Your task to perform on an android device: Show the shopping cart on amazon.com. Search for macbook pro on amazon.com, select the first entry, and add it to the cart. Image 0: 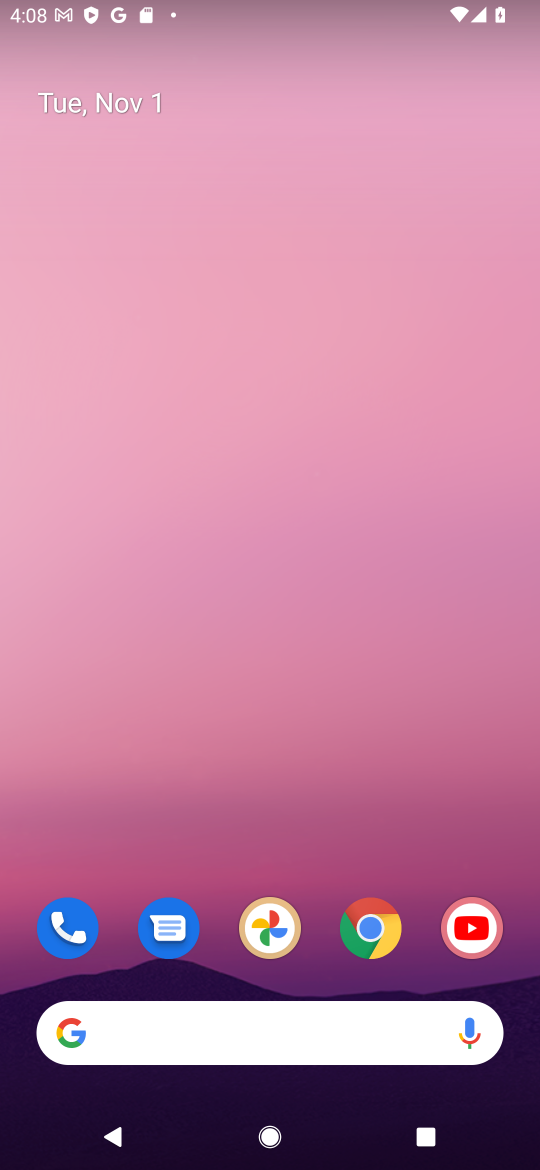
Step 0: click (375, 937)
Your task to perform on an android device: Show the shopping cart on amazon.com. Search for macbook pro on amazon.com, select the first entry, and add it to the cart. Image 1: 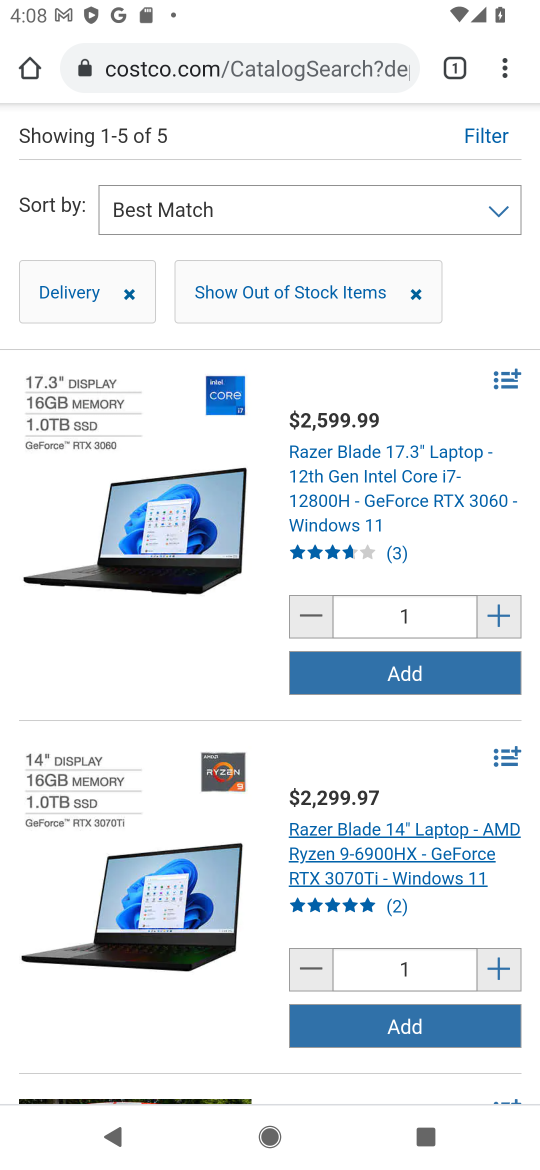
Step 1: click (238, 59)
Your task to perform on an android device: Show the shopping cart on amazon.com. Search for macbook pro on amazon.com, select the first entry, and add it to the cart. Image 2: 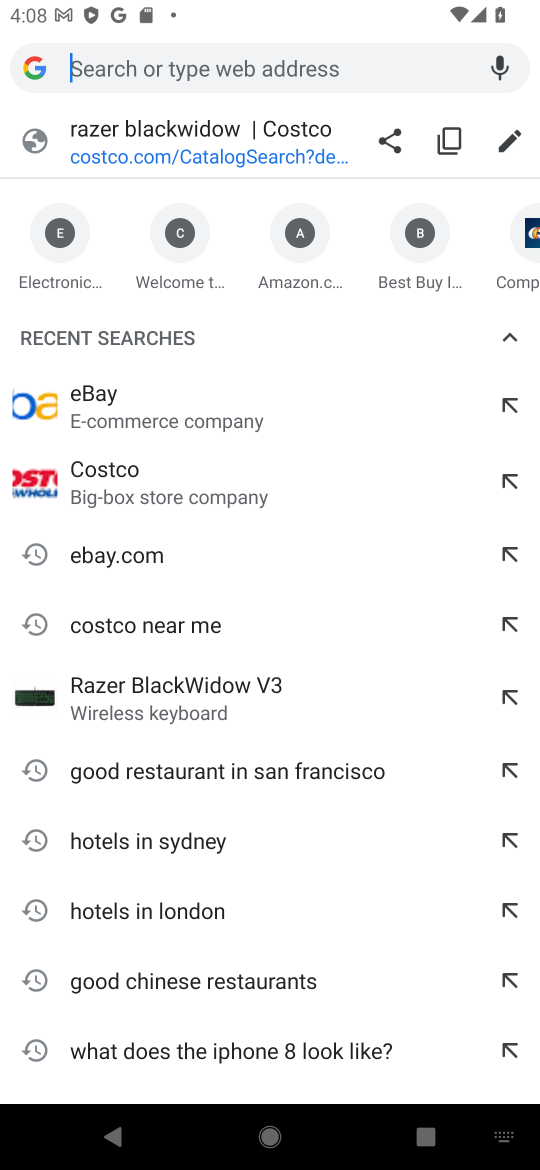
Step 2: type "amazon.com"
Your task to perform on an android device: Show the shopping cart on amazon.com. Search for macbook pro on amazon.com, select the first entry, and add it to the cart. Image 3: 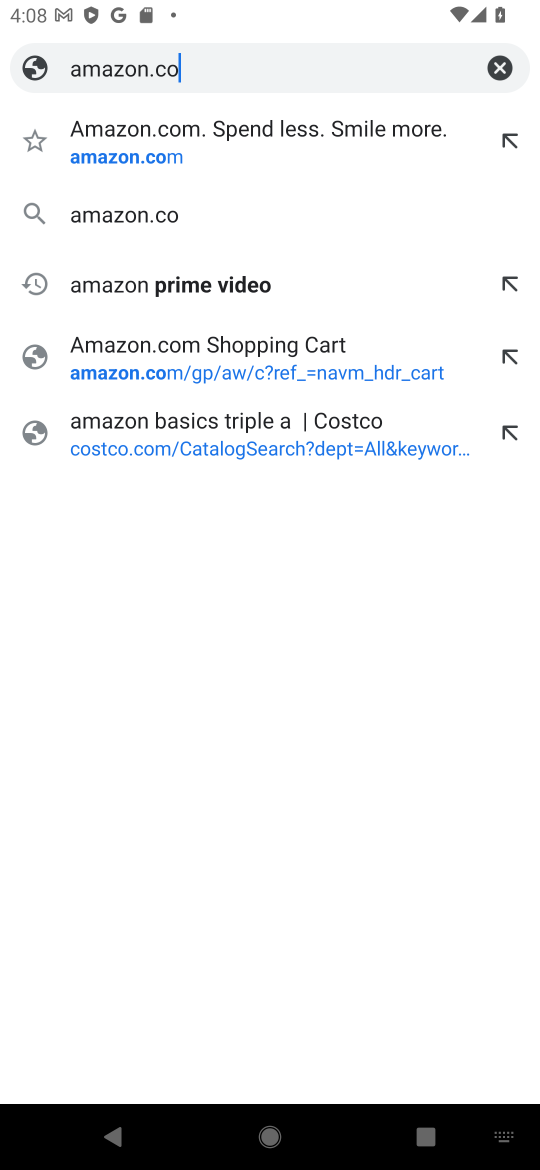
Step 3: type ""
Your task to perform on an android device: Show the shopping cart on amazon.com. Search for macbook pro on amazon.com, select the first entry, and add it to the cart. Image 4: 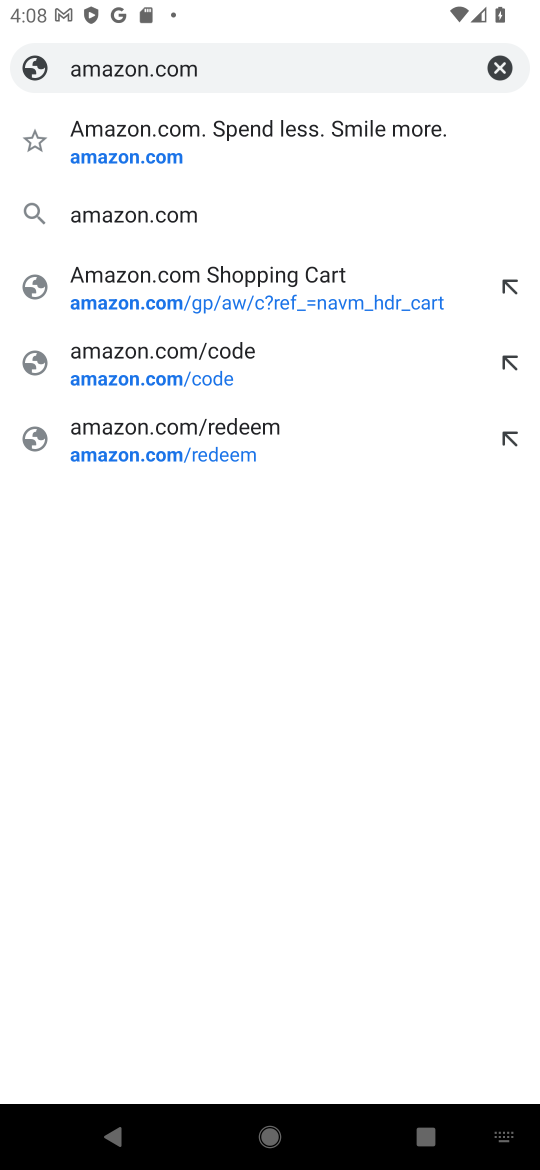
Step 4: press enter
Your task to perform on an android device: Show the shopping cart on amazon.com. Search for macbook pro on amazon.com, select the first entry, and add it to the cart. Image 5: 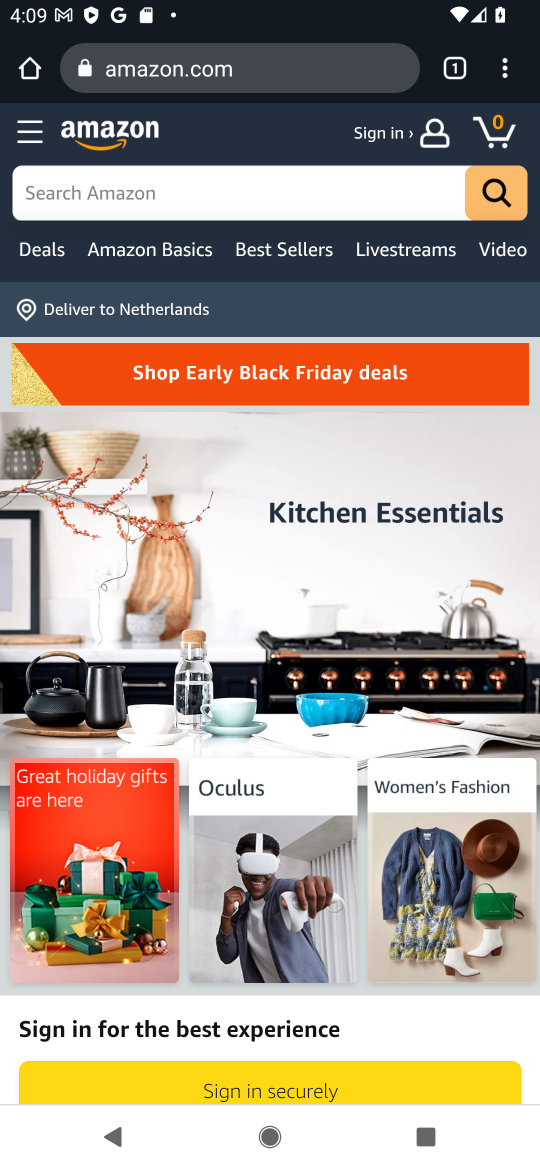
Step 5: click (496, 131)
Your task to perform on an android device: Show the shopping cart on amazon.com. Search for macbook pro on amazon.com, select the first entry, and add it to the cart. Image 6: 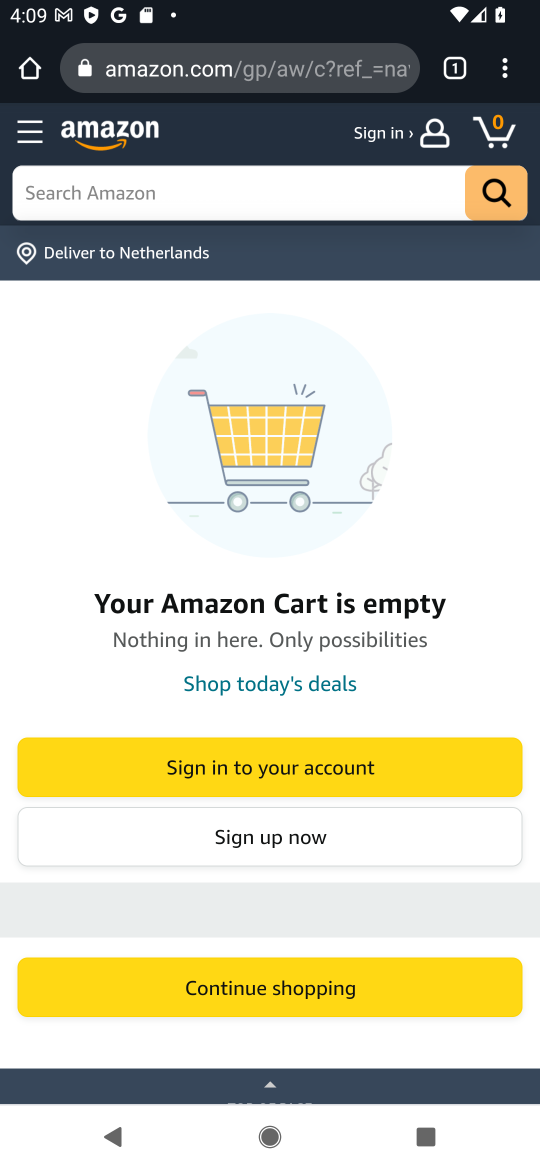
Step 6: click (198, 189)
Your task to perform on an android device: Show the shopping cart on amazon.com. Search for macbook pro on amazon.com, select the first entry, and add it to the cart. Image 7: 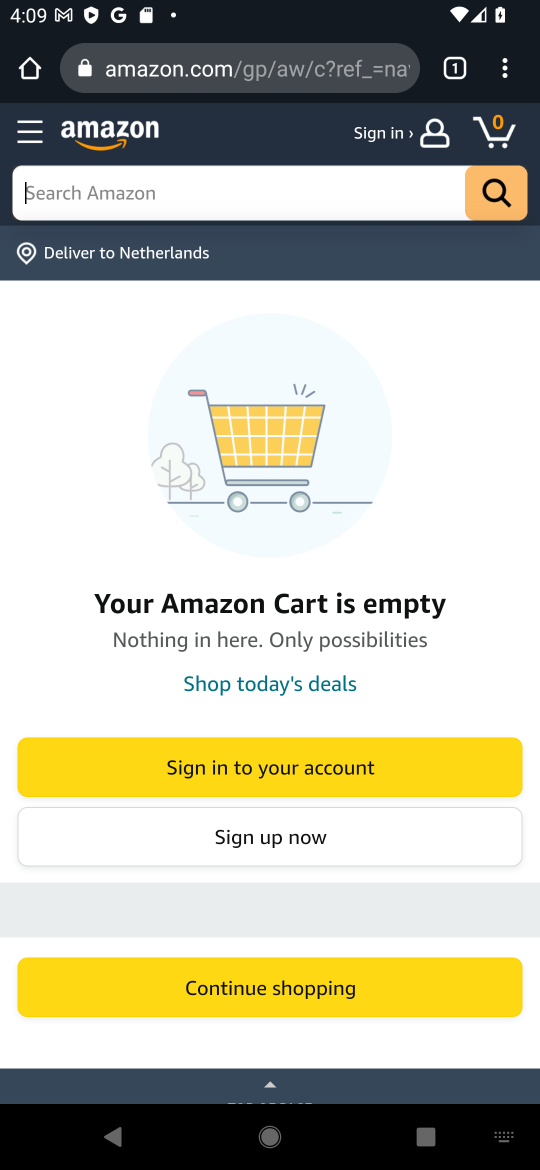
Step 7: type "macbook pro"
Your task to perform on an android device: Show the shopping cart on amazon.com. Search for macbook pro on amazon.com, select the first entry, and add it to the cart. Image 8: 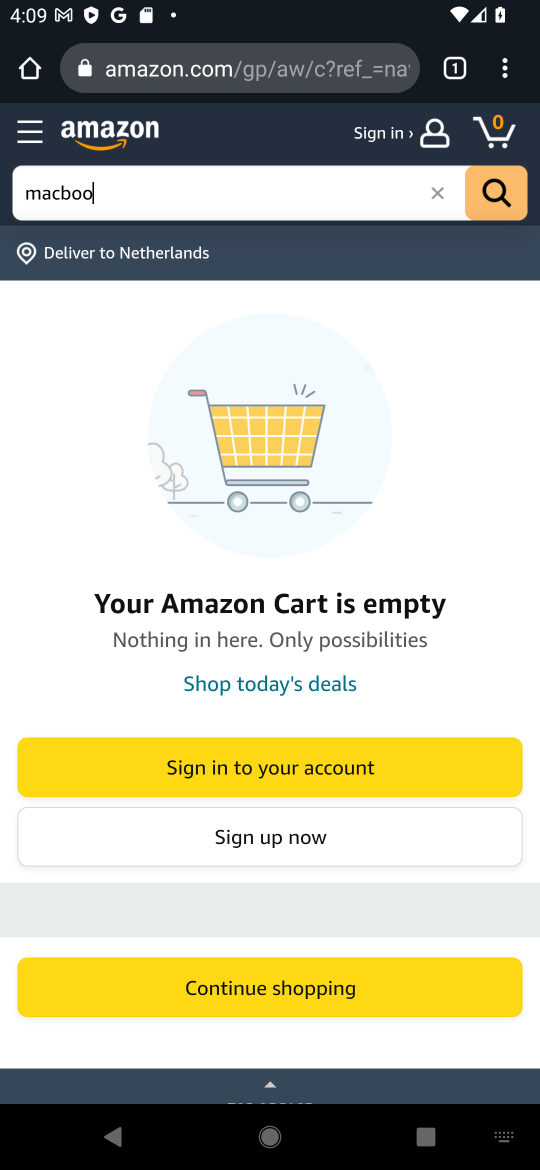
Step 8: type ""
Your task to perform on an android device: Show the shopping cart on amazon.com. Search for macbook pro on amazon.com, select the first entry, and add it to the cart. Image 9: 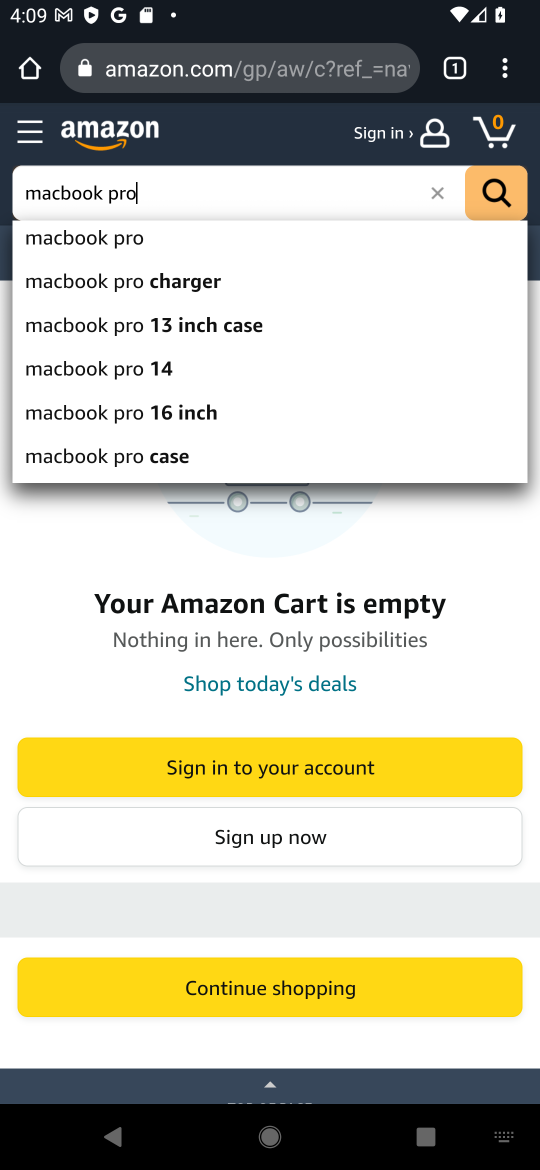
Step 9: press enter
Your task to perform on an android device: Show the shopping cart on amazon.com. Search for macbook pro on amazon.com, select the first entry, and add it to the cart. Image 10: 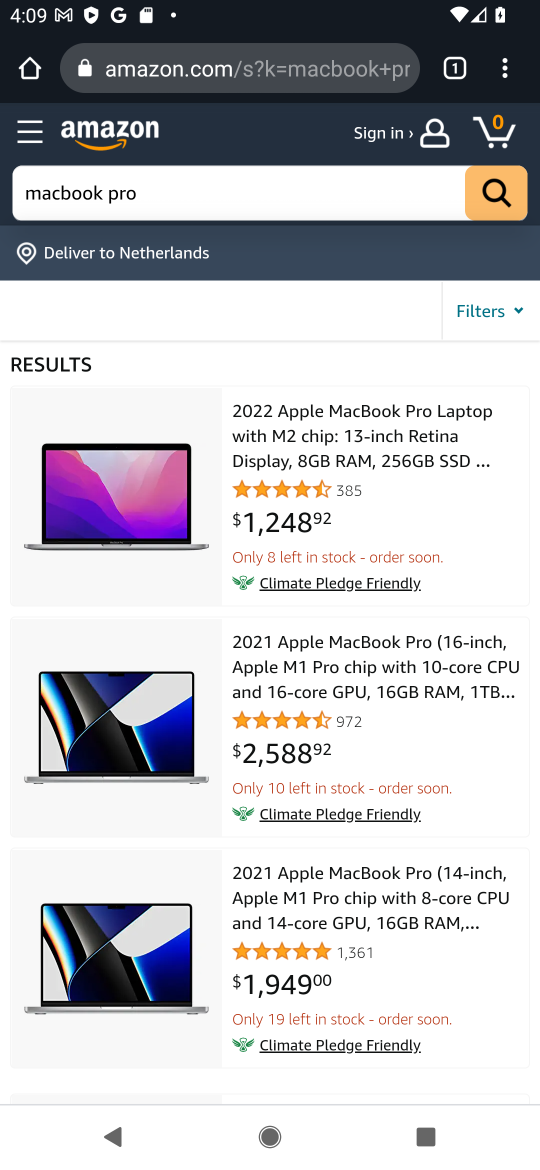
Step 10: click (376, 451)
Your task to perform on an android device: Show the shopping cart on amazon.com. Search for macbook pro on amazon.com, select the first entry, and add it to the cart. Image 11: 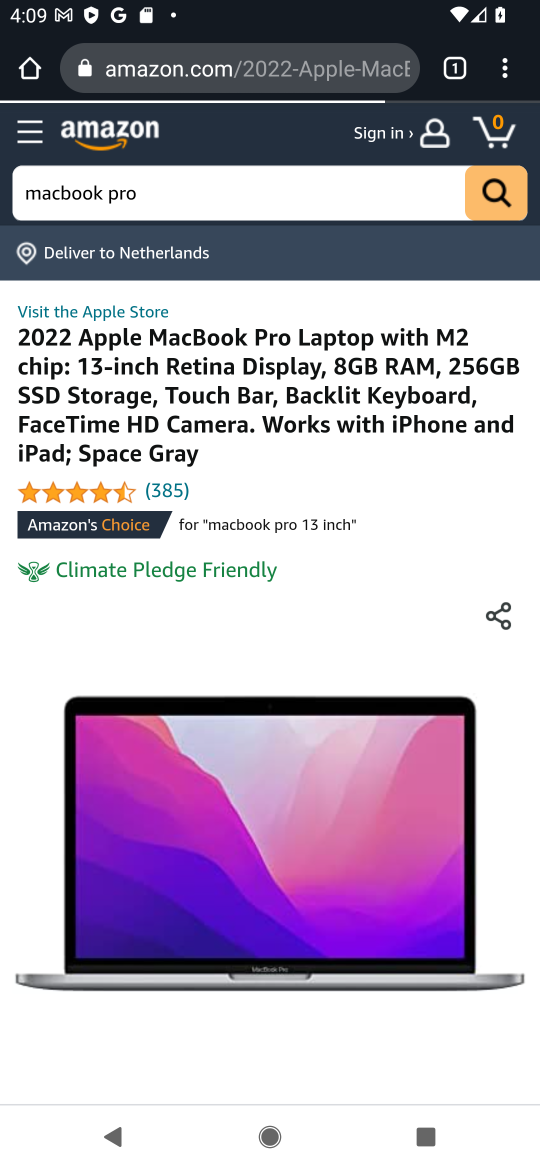
Step 11: drag from (416, 935) to (387, 423)
Your task to perform on an android device: Show the shopping cart on amazon.com. Search for macbook pro on amazon.com, select the first entry, and add it to the cart. Image 12: 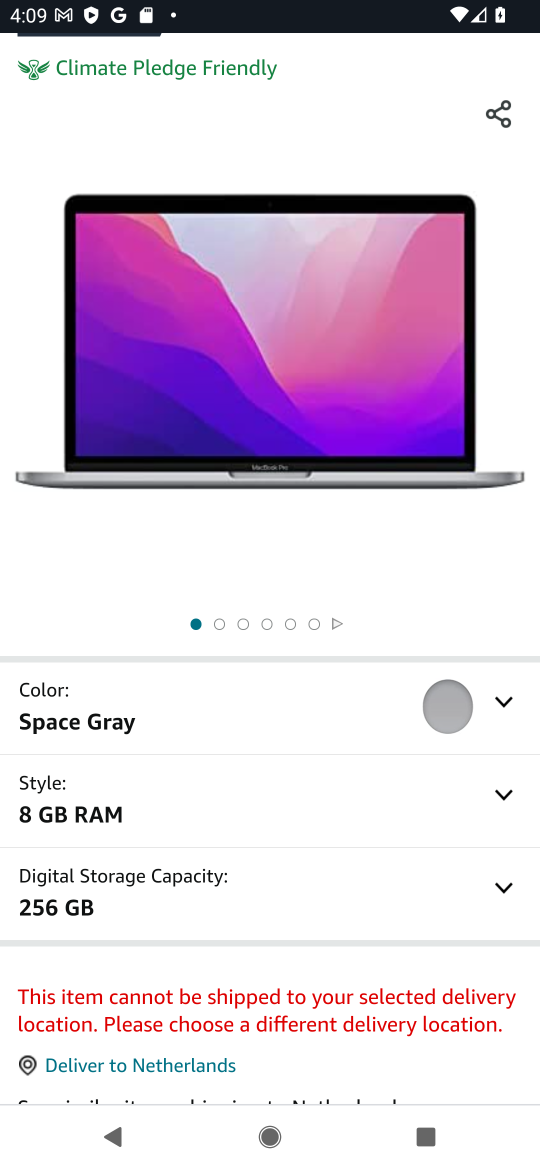
Step 12: drag from (350, 938) to (349, 654)
Your task to perform on an android device: Show the shopping cart on amazon.com. Search for macbook pro on amazon.com, select the first entry, and add it to the cart. Image 13: 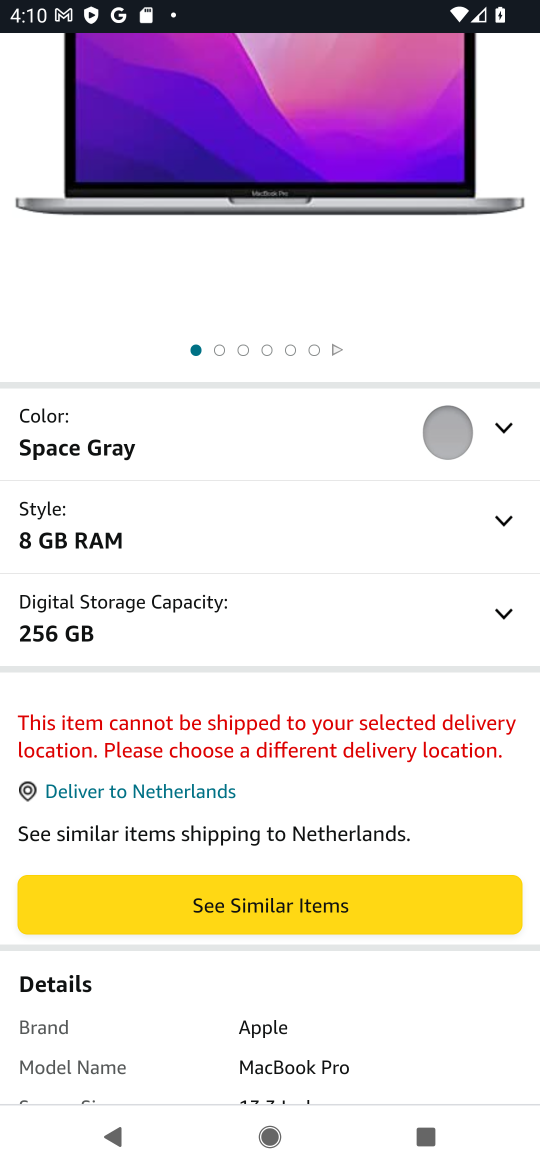
Step 13: press back button
Your task to perform on an android device: Show the shopping cart on amazon.com. Search for macbook pro on amazon.com, select the first entry, and add it to the cart. Image 14: 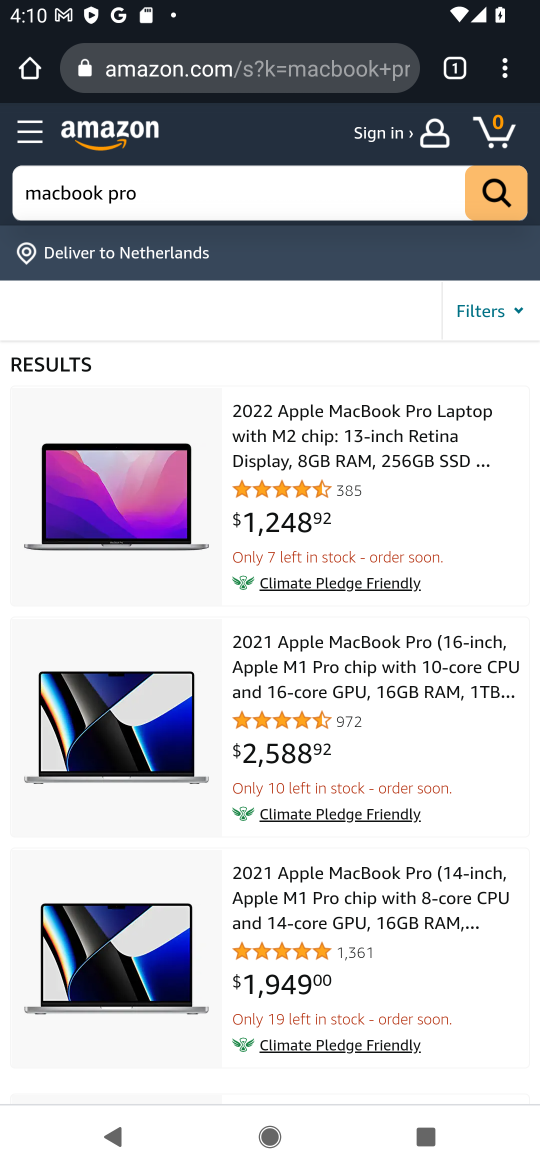
Step 14: click (300, 736)
Your task to perform on an android device: Show the shopping cart on amazon.com. Search for macbook pro on amazon.com, select the first entry, and add it to the cart. Image 15: 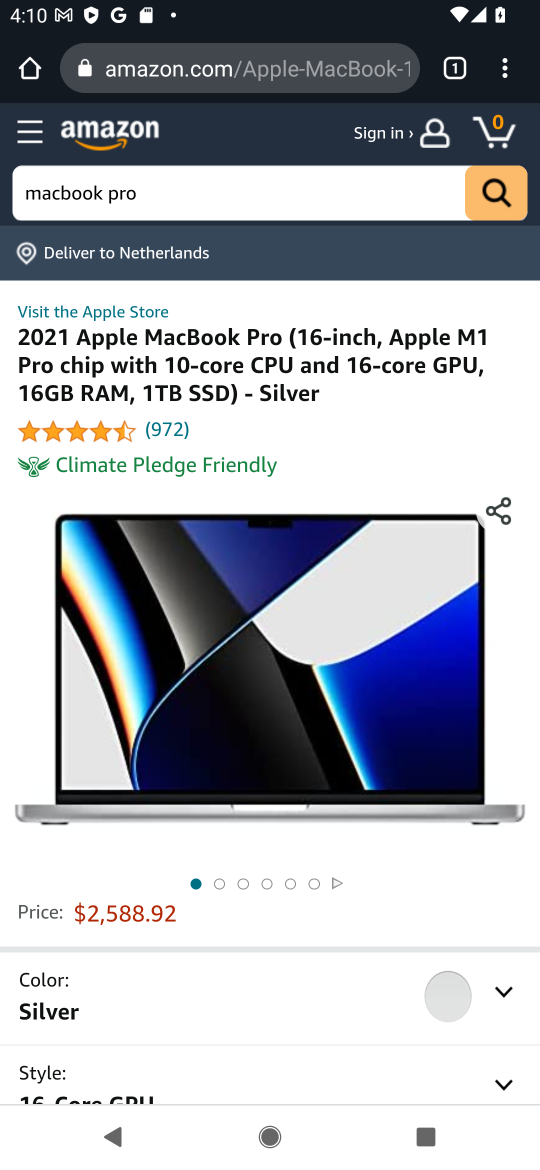
Step 15: drag from (236, 1130) to (194, 930)
Your task to perform on an android device: Show the shopping cart on amazon.com. Search for macbook pro on amazon.com, select the first entry, and add it to the cart. Image 16: 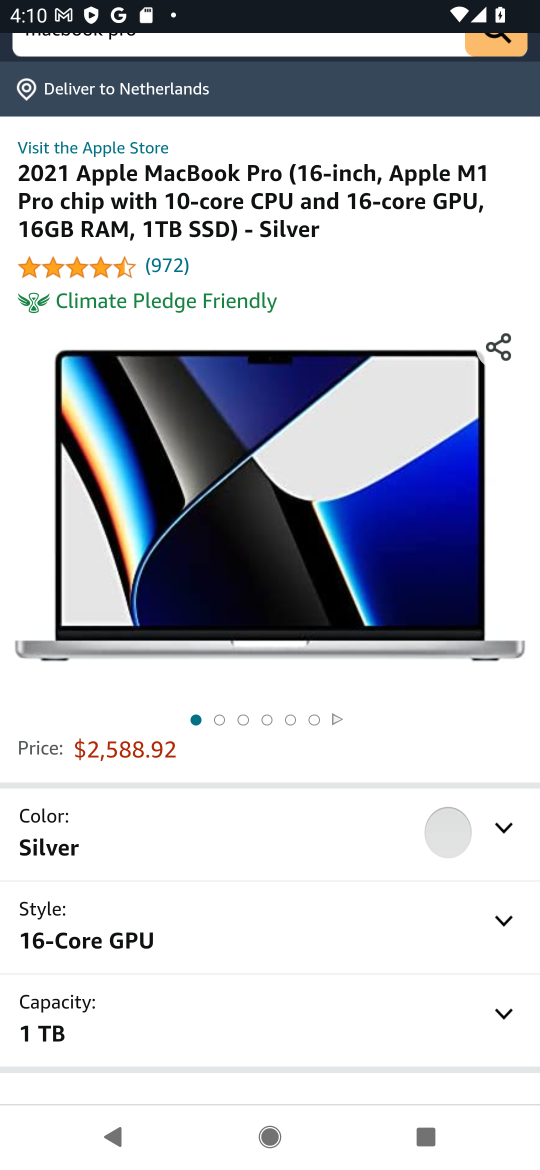
Step 16: drag from (272, 979) to (237, 570)
Your task to perform on an android device: Show the shopping cart on amazon.com. Search for macbook pro on amazon.com, select the first entry, and add it to the cart. Image 17: 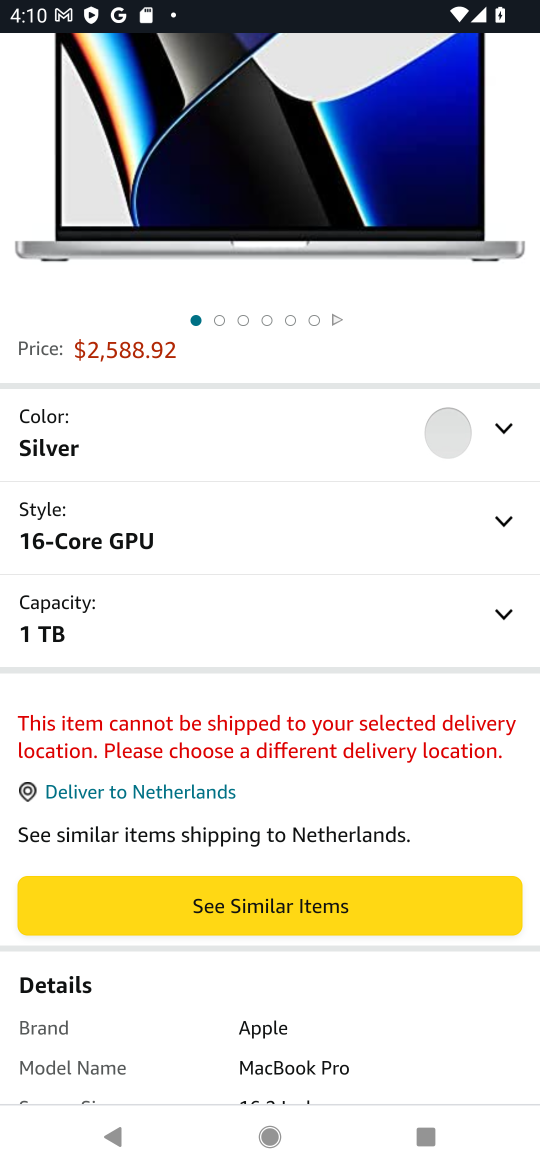
Step 17: click (160, 795)
Your task to perform on an android device: Show the shopping cart on amazon.com. Search for macbook pro on amazon.com, select the first entry, and add it to the cart. Image 18: 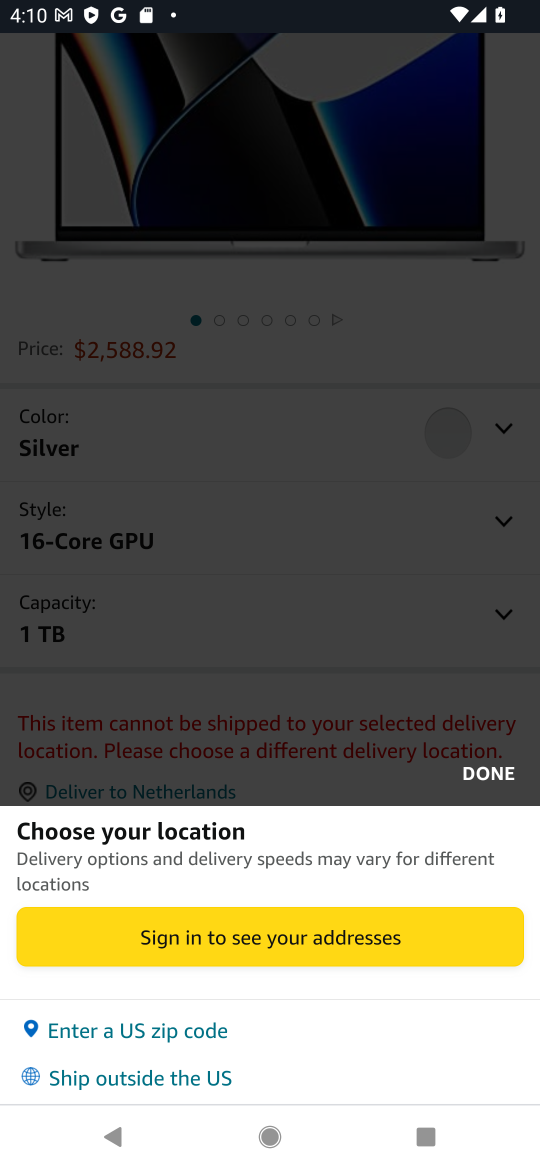
Step 18: click (279, 944)
Your task to perform on an android device: Show the shopping cart on amazon.com. Search for macbook pro on amazon.com, select the first entry, and add it to the cart. Image 19: 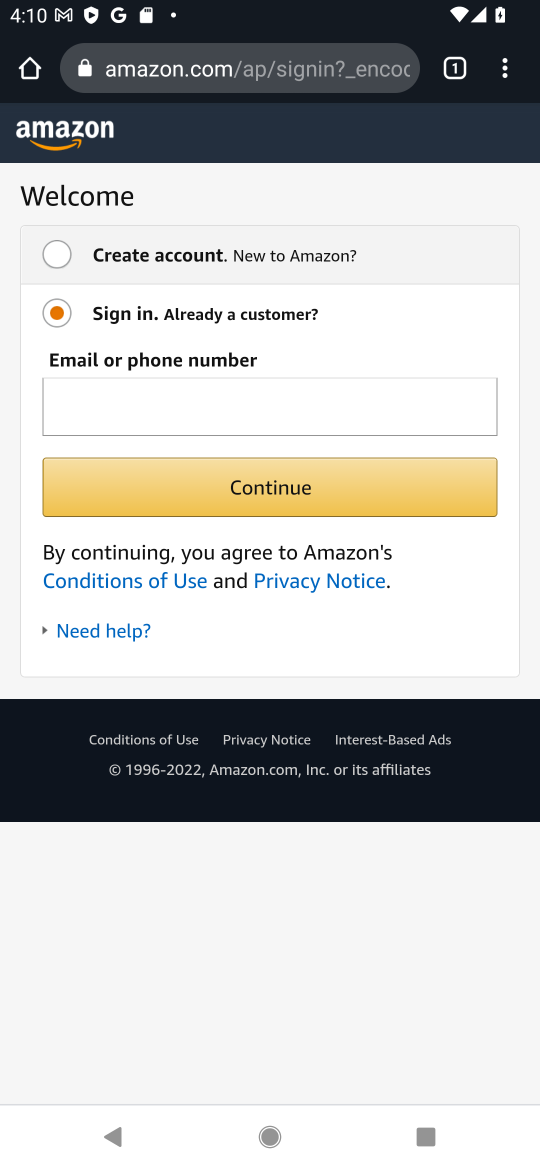
Step 19: task complete